Your task to perform on an android device: empty trash in the gmail app Image 0: 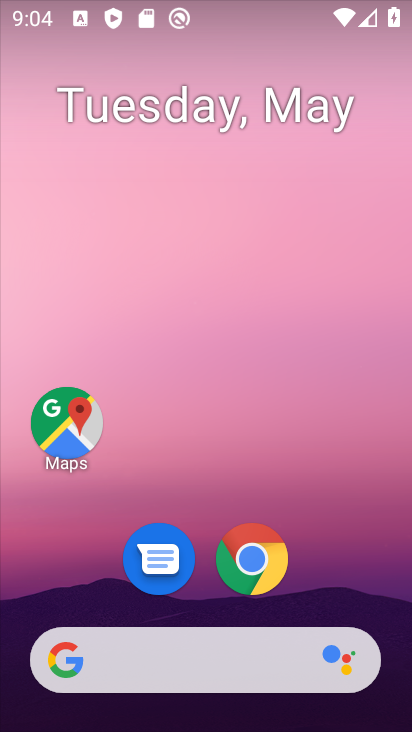
Step 0: drag from (240, 640) to (212, 120)
Your task to perform on an android device: empty trash in the gmail app Image 1: 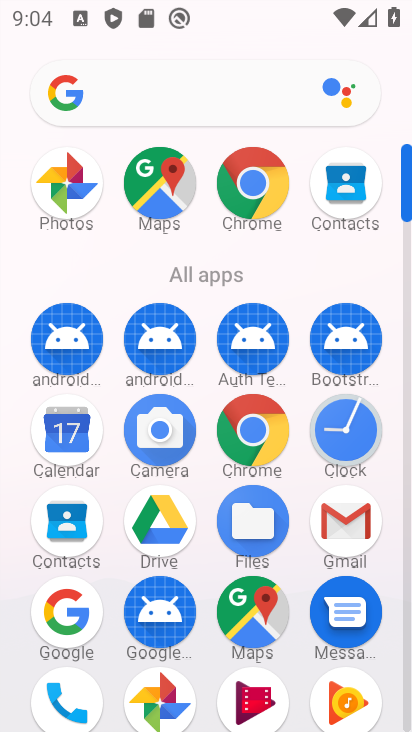
Step 1: click (336, 522)
Your task to perform on an android device: empty trash in the gmail app Image 2: 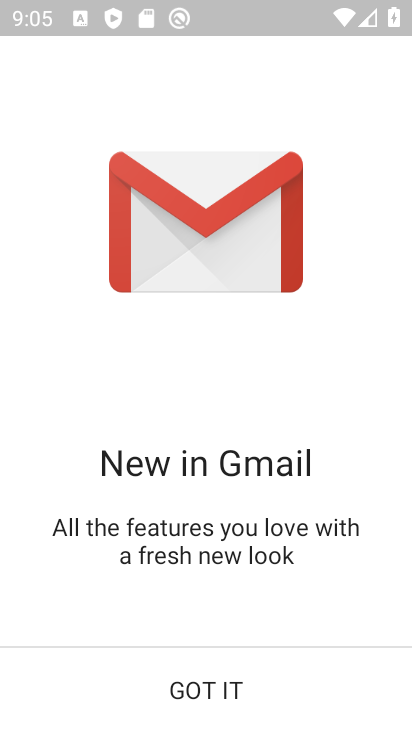
Step 2: click (253, 691)
Your task to perform on an android device: empty trash in the gmail app Image 3: 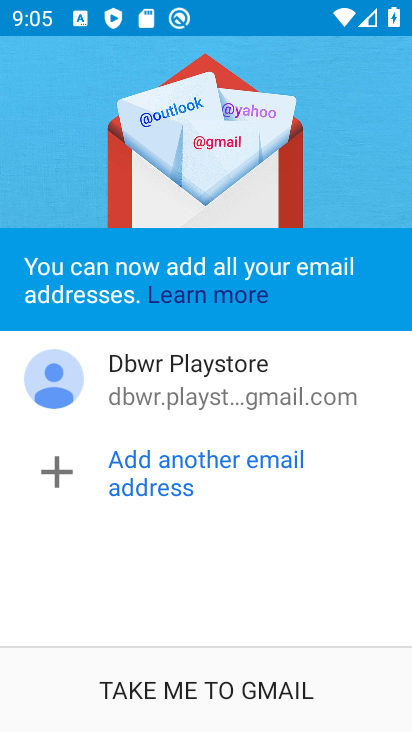
Step 3: click (253, 691)
Your task to perform on an android device: empty trash in the gmail app Image 4: 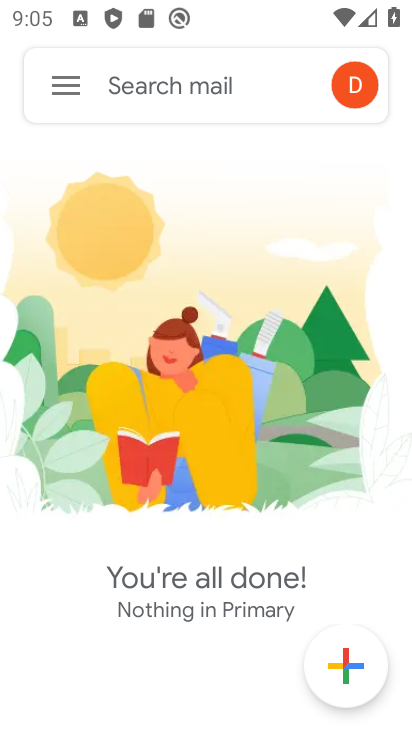
Step 4: click (69, 90)
Your task to perform on an android device: empty trash in the gmail app Image 5: 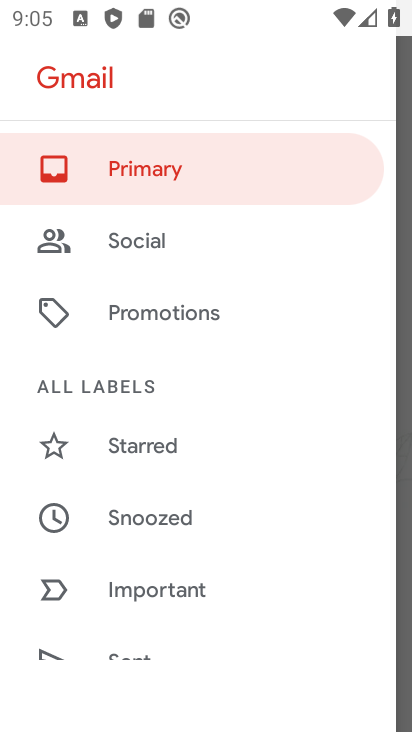
Step 5: drag from (179, 580) to (136, 85)
Your task to perform on an android device: empty trash in the gmail app Image 6: 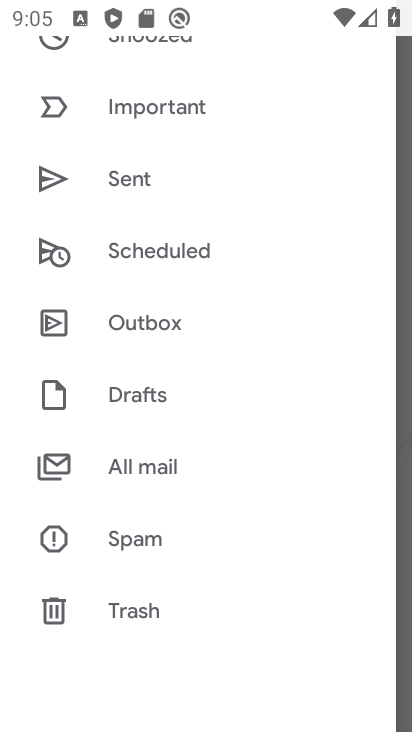
Step 6: click (141, 601)
Your task to perform on an android device: empty trash in the gmail app Image 7: 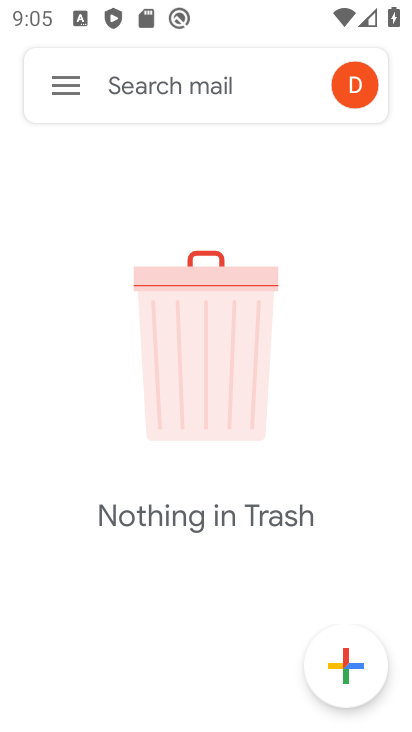
Step 7: task complete